Your task to perform on an android device: Open privacy settings Image 0: 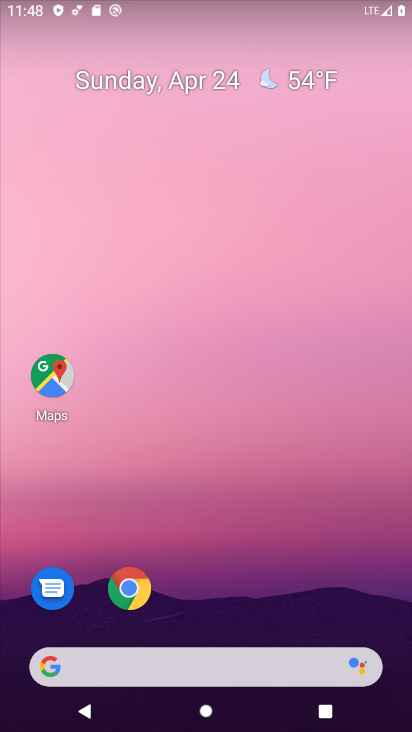
Step 0: drag from (185, 647) to (256, 48)
Your task to perform on an android device: Open privacy settings Image 1: 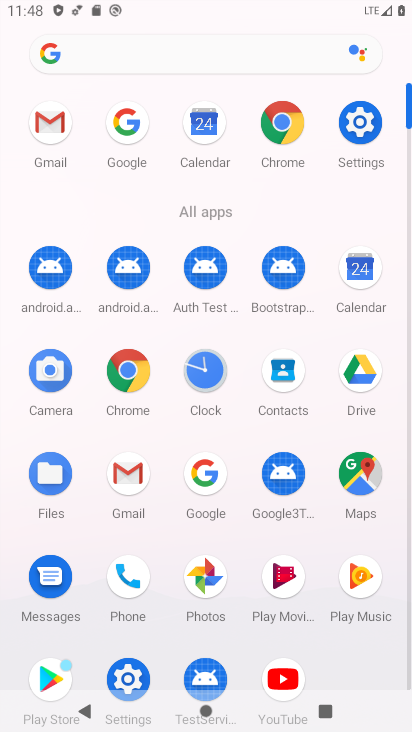
Step 1: click (125, 682)
Your task to perform on an android device: Open privacy settings Image 2: 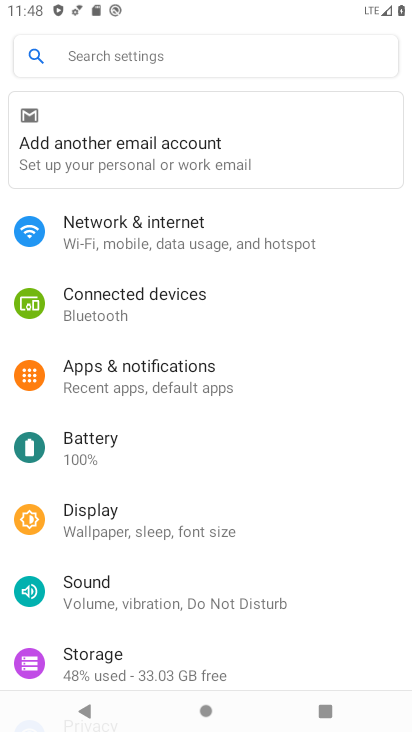
Step 2: drag from (158, 600) to (138, 117)
Your task to perform on an android device: Open privacy settings Image 3: 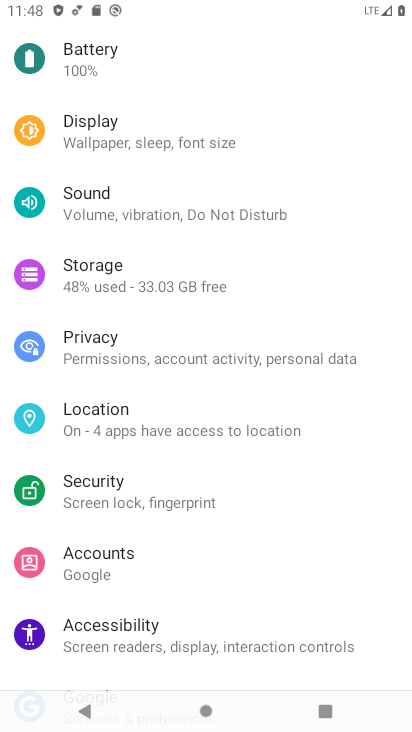
Step 3: click (102, 354)
Your task to perform on an android device: Open privacy settings Image 4: 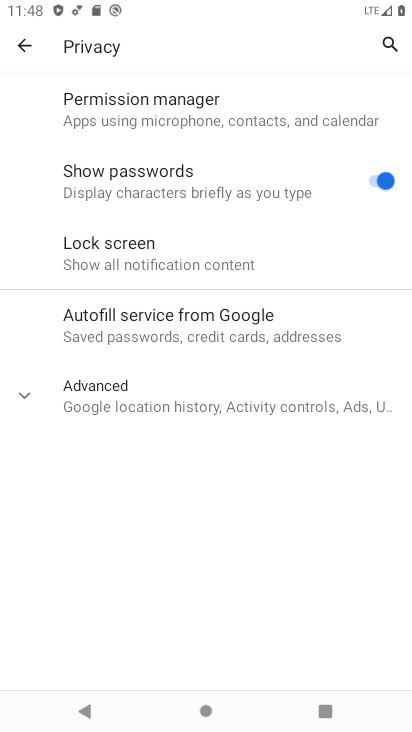
Step 4: click (107, 384)
Your task to perform on an android device: Open privacy settings Image 5: 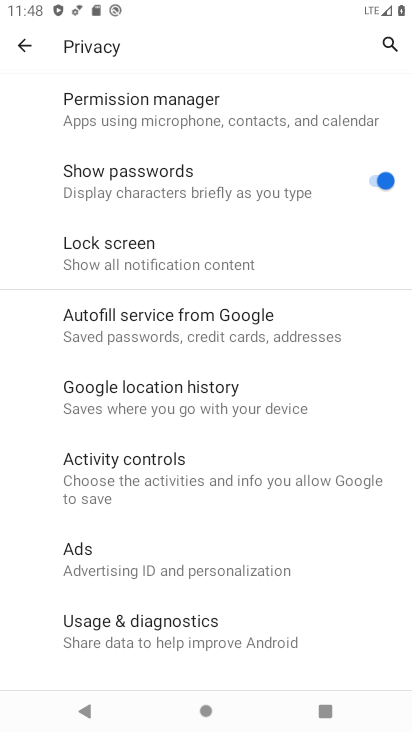
Step 5: task complete